Your task to perform on an android device: turn on the 12-hour format for clock Image 0: 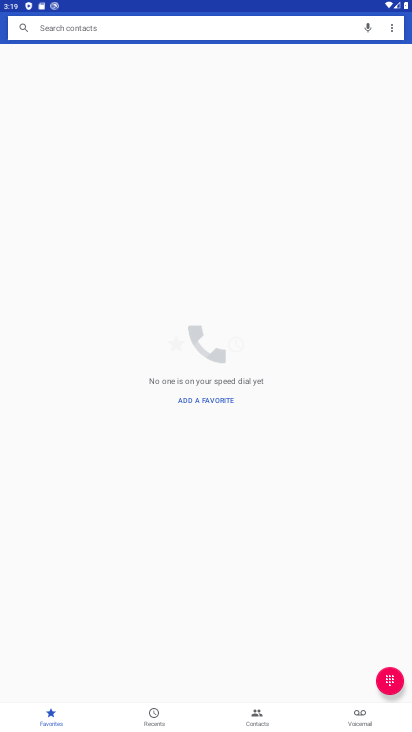
Step 0: press home button
Your task to perform on an android device: turn on the 12-hour format for clock Image 1: 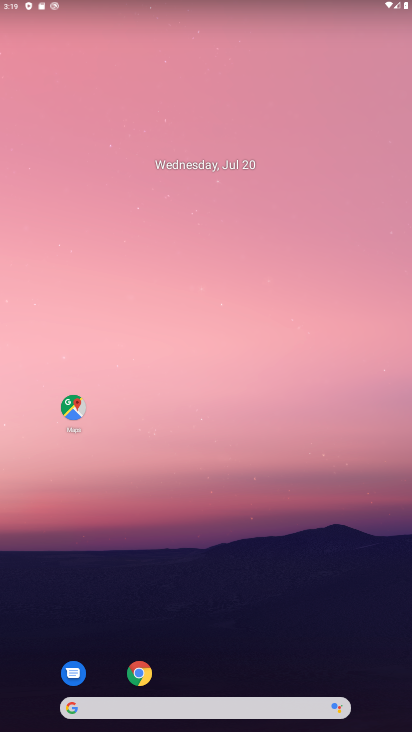
Step 1: drag from (213, 697) to (30, 313)
Your task to perform on an android device: turn on the 12-hour format for clock Image 2: 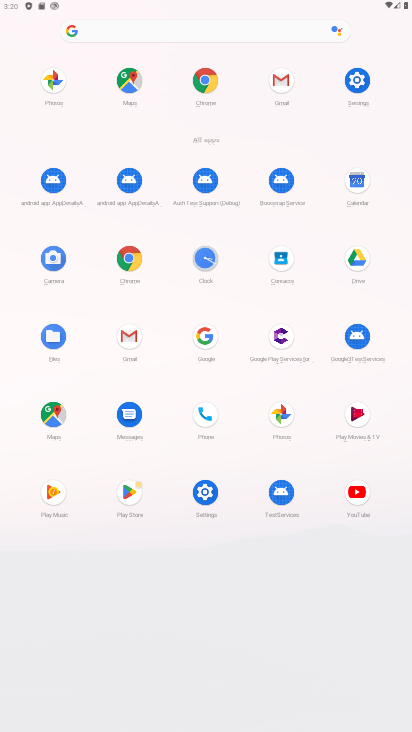
Step 2: click (210, 258)
Your task to perform on an android device: turn on the 12-hour format for clock Image 3: 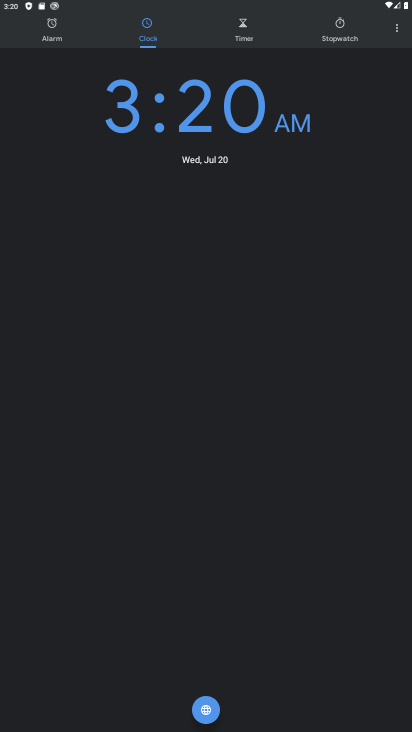
Step 3: click (409, 26)
Your task to perform on an android device: turn on the 12-hour format for clock Image 4: 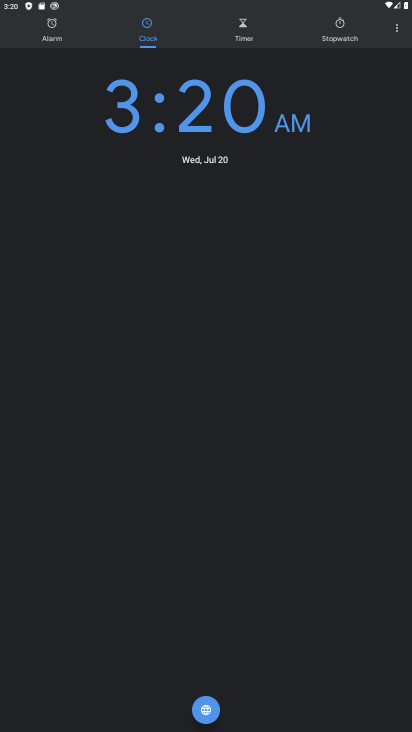
Step 4: click (394, 28)
Your task to perform on an android device: turn on the 12-hour format for clock Image 5: 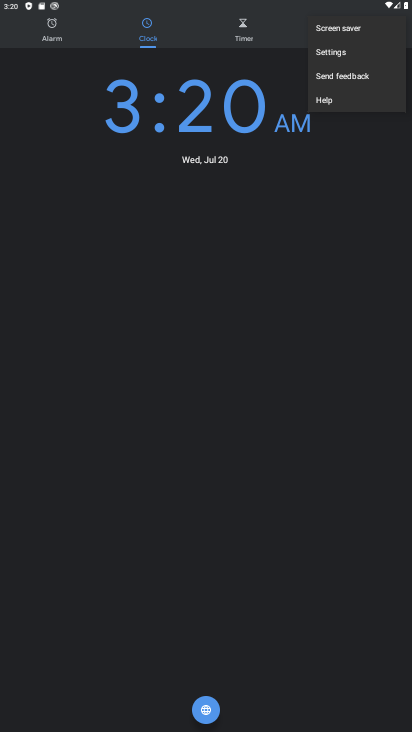
Step 5: click (342, 53)
Your task to perform on an android device: turn on the 12-hour format for clock Image 6: 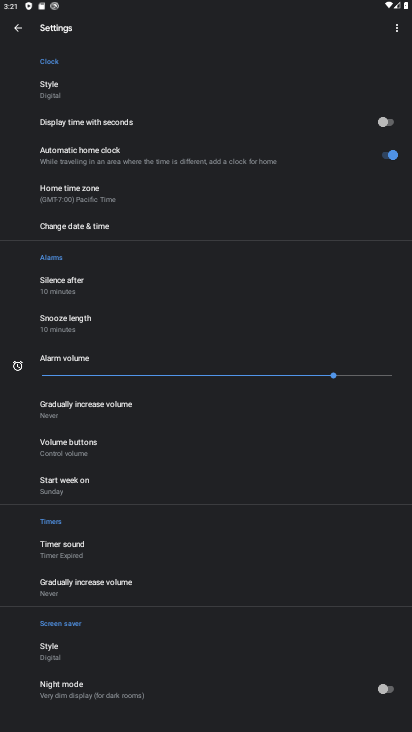
Step 6: click (73, 229)
Your task to perform on an android device: turn on the 12-hour format for clock Image 7: 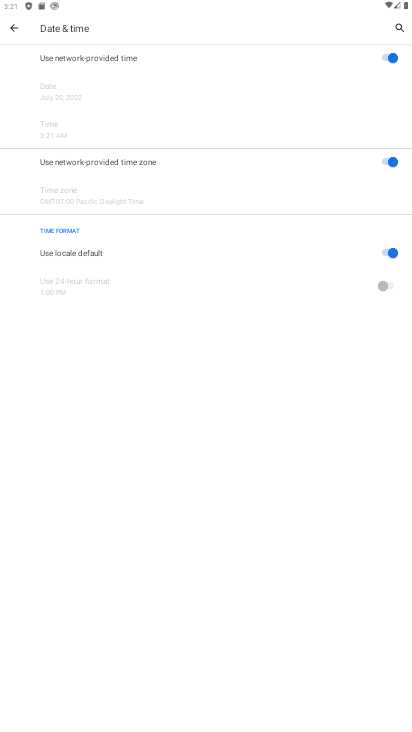
Step 7: click (381, 246)
Your task to perform on an android device: turn on the 12-hour format for clock Image 8: 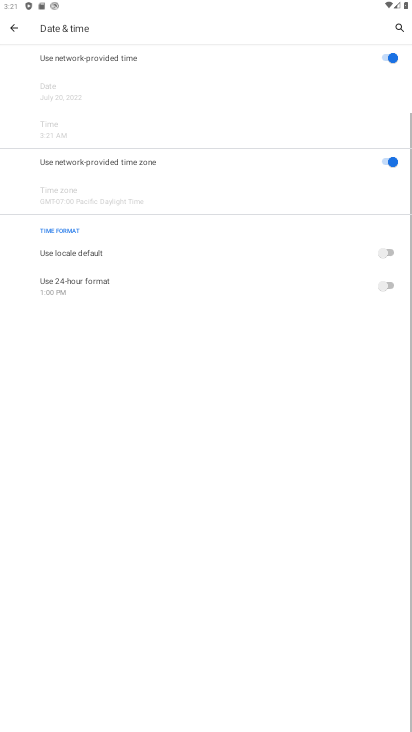
Step 8: click (386, 286)
Your task to perform on an android device: turn on the 12-hour format for clock Image 9: 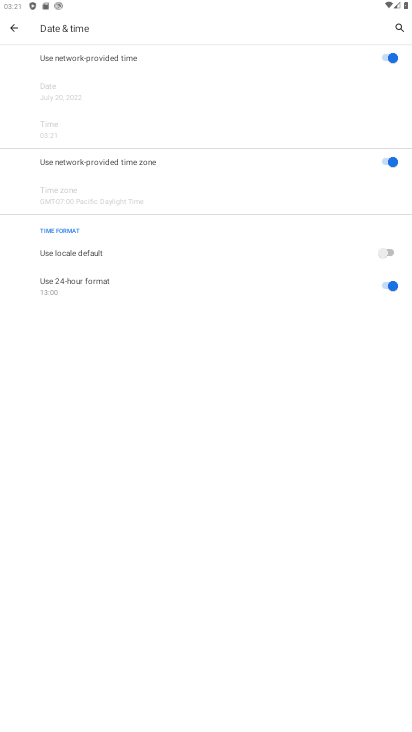
Step 9: task complete